Your task to perform on an android device: Open accessibility settings Image 0: 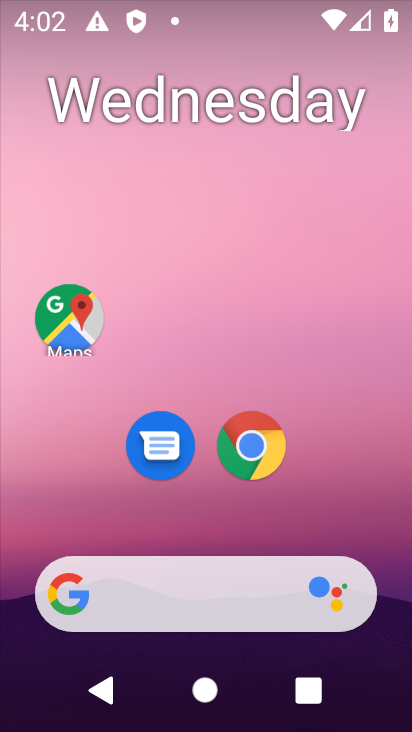
Step 0: drag from (339, 481) to (279, 2)
Your task to perform on an android device: Open accessibility settings Image 1: 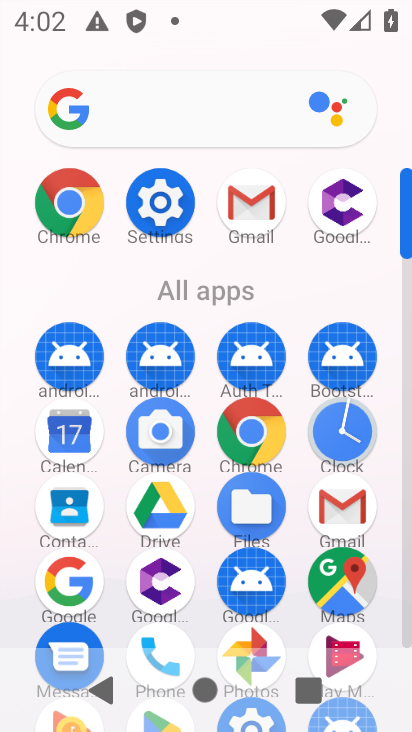
Step 1: click (159, 213)
Your task to perform on an android device: Open accessibility settings Image 2: 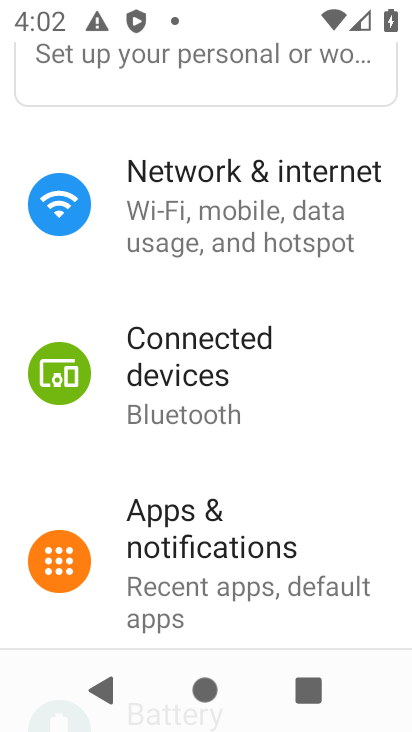
Step 2: drag from (256, 591) to (278, 149)
Your task to perform on an android device: Open accessibility settings Image 3: 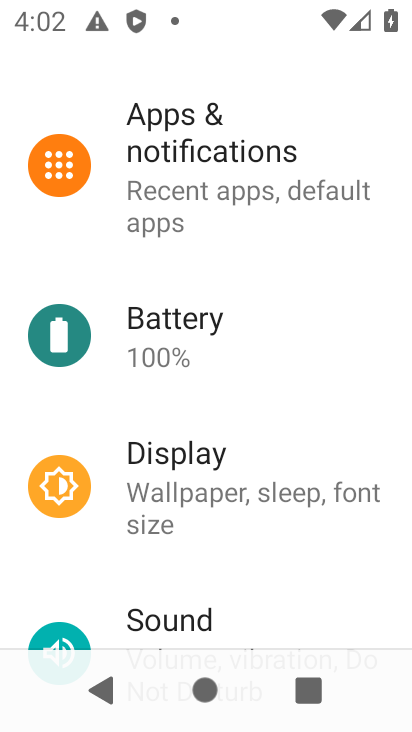
Step 3: drag from (262, 600) to (292, 138)
Your task to perform on an android device: Open accessibility settings Image 4: 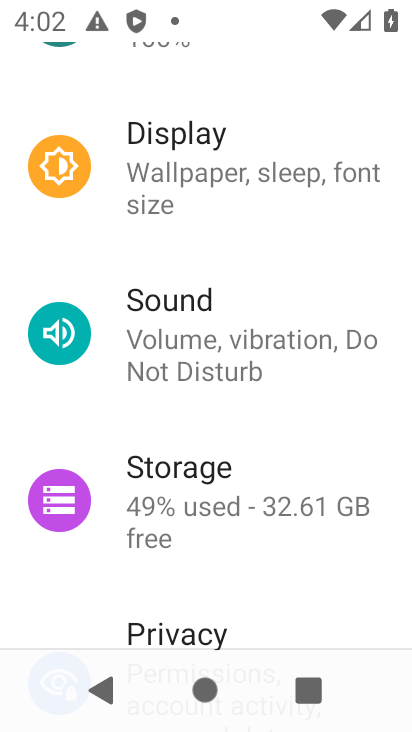
Step 4: drag from (224, 547) to (262, 171)
Your task to perform on an android device: Open accessibility settings Image 5: 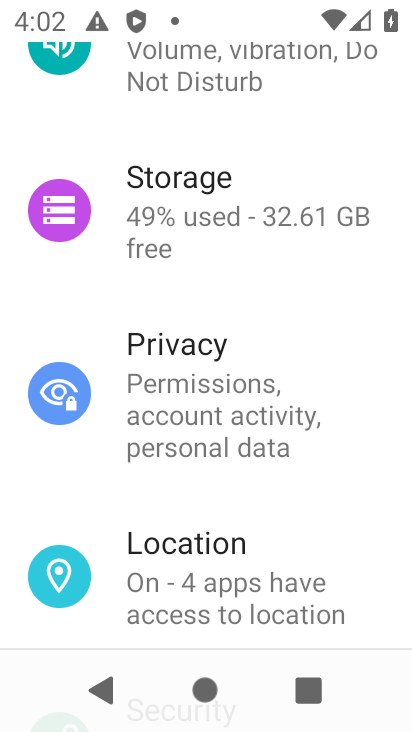
Step 5: drag from (250, 563) to (245, 140)
Your task to perform on an android device: Open accessibility settings Image 6: 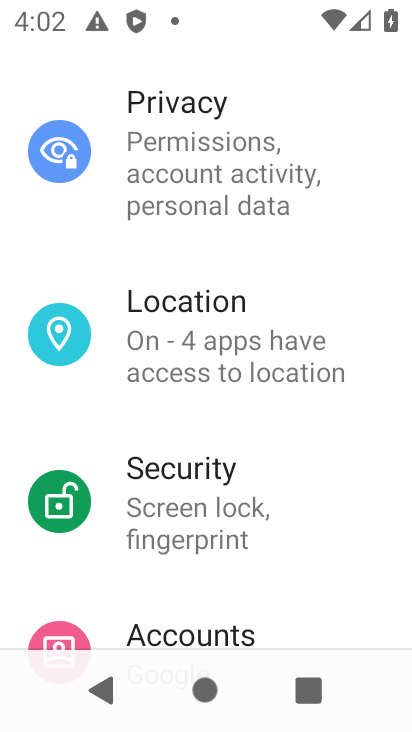
Step 6: drag from (213, 611) to (191, 84)
Your task to perform on an android device: Open accessibility settings Image 7: 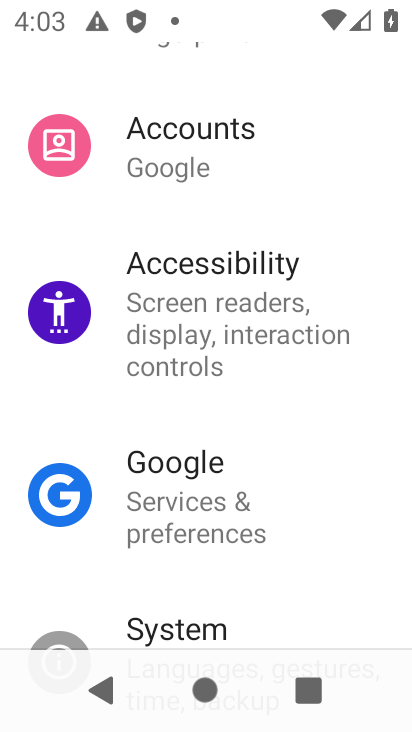
Step 7: click (205, 324)
Your task to perform on an android device: Open accessibility settings Image 8: 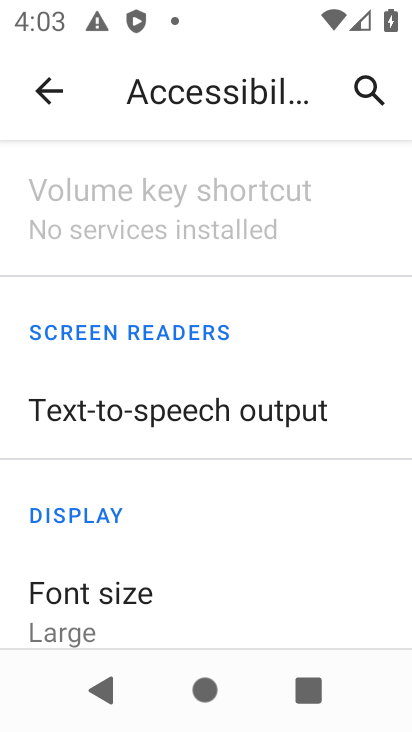
Step 8: task complete